Your task to perform on an android device: change the clock display to show seconds Image 0: 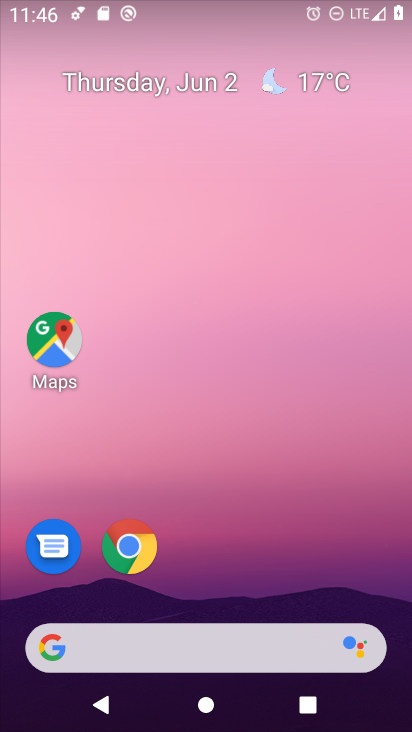
Step 0: drag from (243, 313) to (218, 30)
Your task to perform on an android device: change the clock display to show seconds Image 1: 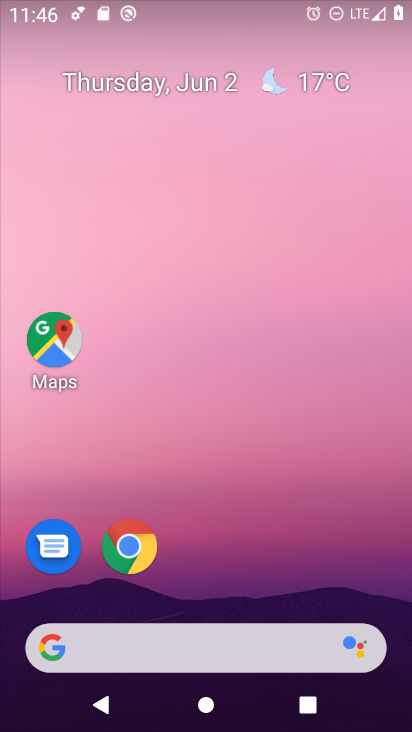
Step 1: drag from (263, 565) to (159, 3)
Your task to perform on an android device: change the clock display to show seconds Image 2: 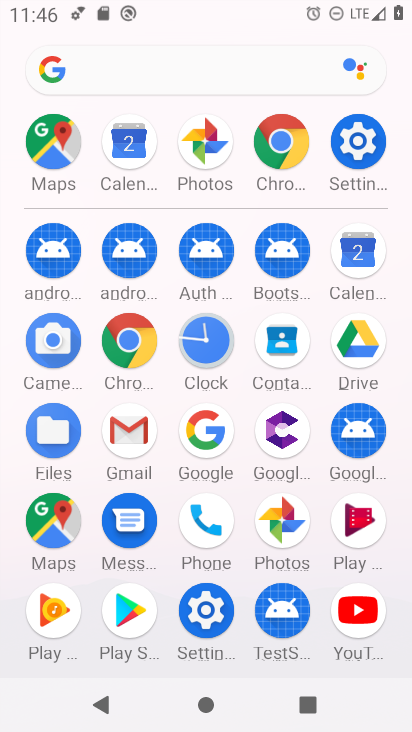
Step 2: click (202, 336)
Your task to perform on an android device: change the clock display to show seconds Image 3: 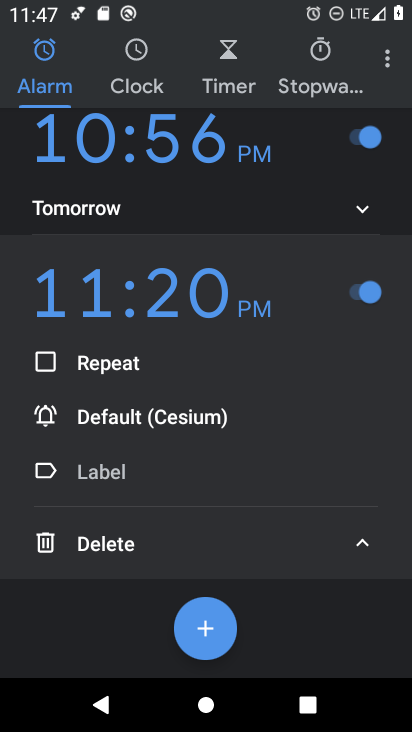
Step 3: click (388, 60)
Your task to perform on an android device: change the clock display to show seconds Image 4: 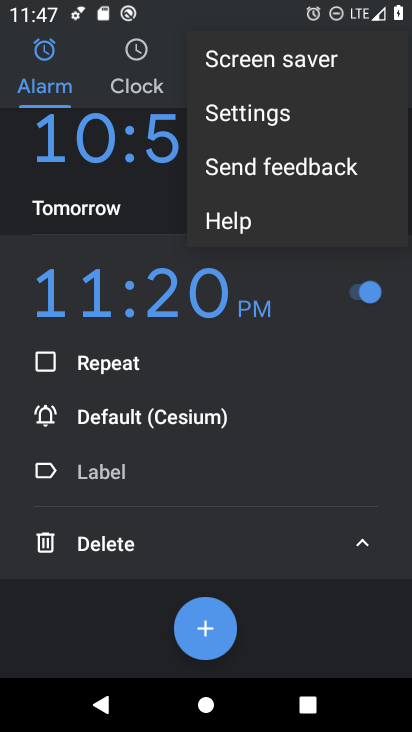
Step 4: click (277, 102)
Your task to perform on an android device: change the clock display to show seconds Image 5: 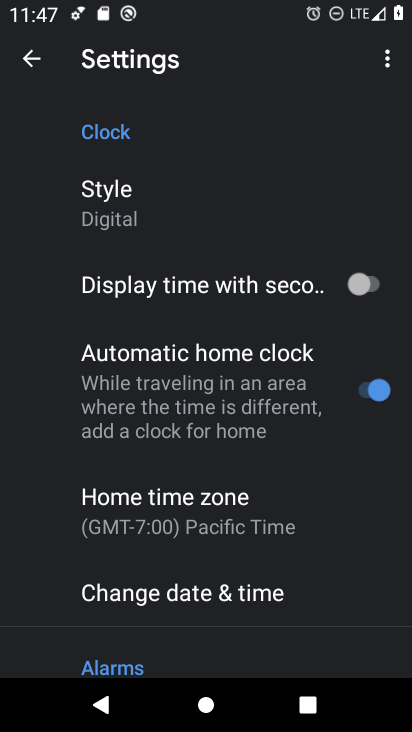
Step 5: click (140, 202)
Your task to perform on an android device: change the clock display to show seconds Image 6: 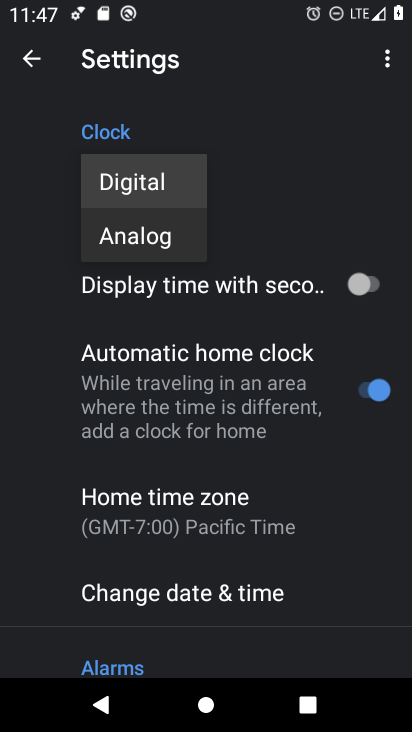
Step 6: click (35, 228)
Your task to perform on an android device: change the clock display to show seconds Image 7: 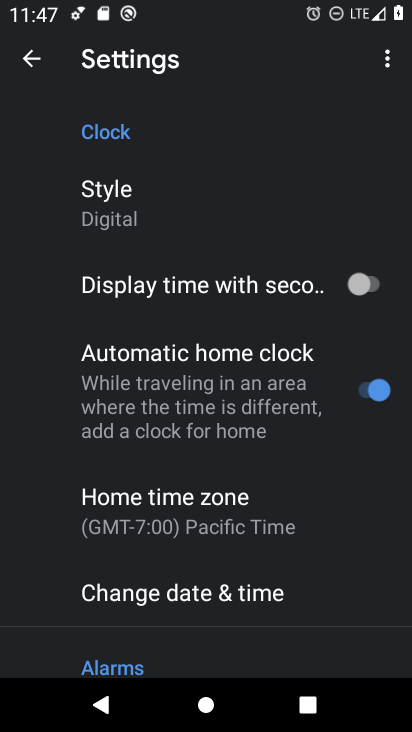
Step 7: click (365, 294)
Your task to perform on an android device: change the clock display to show seconds Image 8: 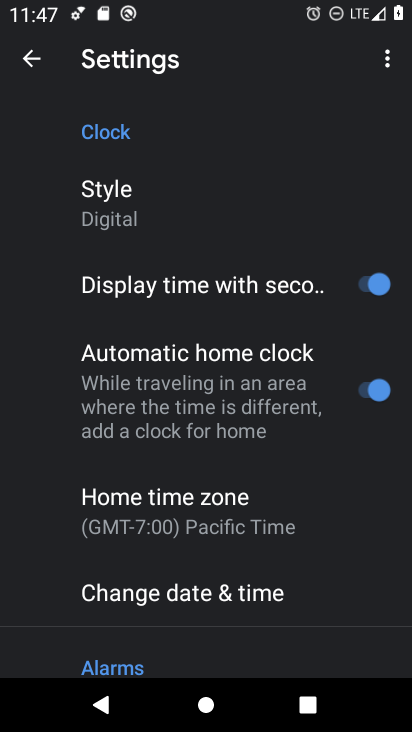
Step 8: task complete